Your task to perform on an android device: Add "macbook pro" to the cart on amazon, then select checkout. Image 0: 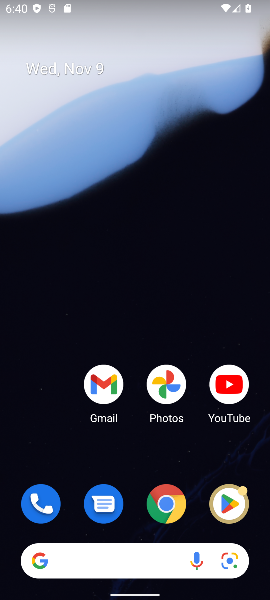
Step 0: click (162, 521)
Your task to perform on an android device: Add "macbook pro" to the cart on amazon, then select checkout. Image 1: 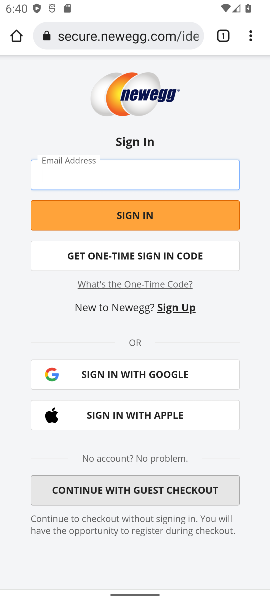
Step 1: click (148, 33)
Your task to perform on an android device: Add "macbook pro" to the cart on amazon, then select checkout. Image 2: 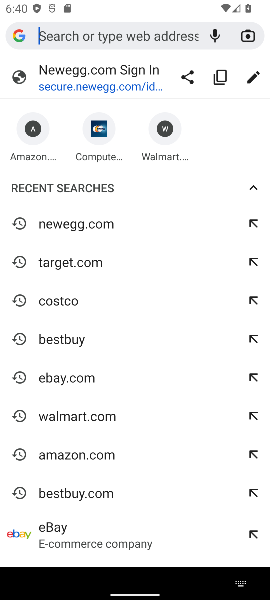
Step 2: type "amazon"
Your task to perform on an android device: Add "macbook pro" to the cart on amazon, then select checkout. Image 3: 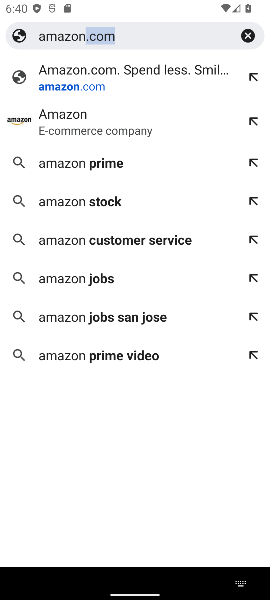
Step 3: click (119, 77)
Your task to perform on an android device: Add "macbook pro" to the cart on amazon, then select checkout. Image 4: 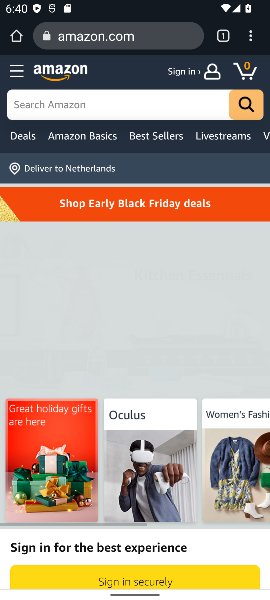
Step 4: click (116, 102)
Your task to perform on an android device: Add "macbook pro" to the cart on amazon, then select checkout. Image 5: 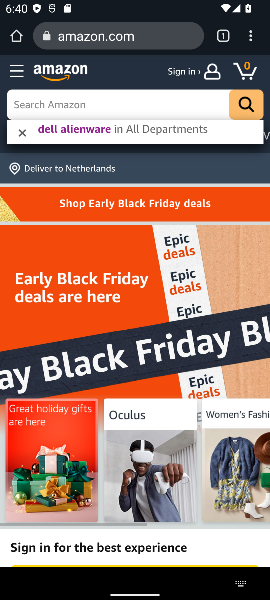
Step 5: type "macbook pro"
Your task to perform on an android device: Add "macbook pro" to the cart on amazon, then select checkout. Image 6: 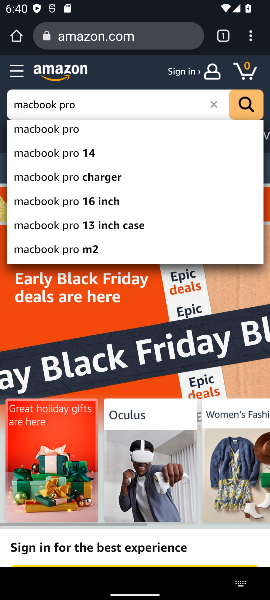
Step 6: click (83, 139)
Your task to perform on an android device: Add "macbook pro" to the cart on amazon, then select checkout. Image 7: 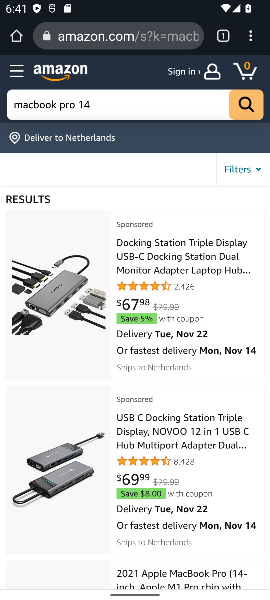
Step 7: task complete